Your task to perform on an android device: Open Android settings Image 0: 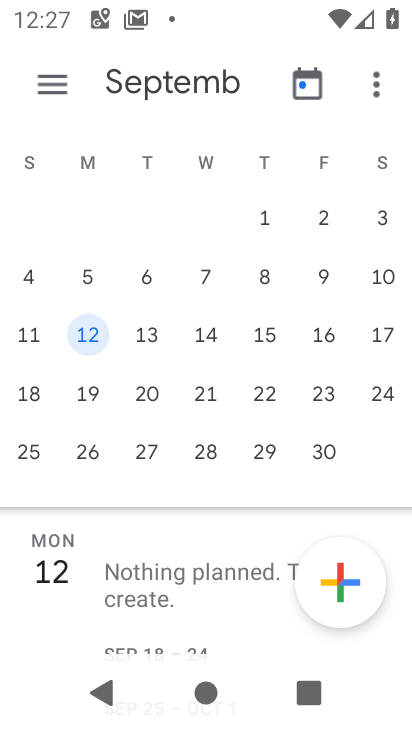
Step 0: press home button
Your task to perform on an android device: Open Android settings Image 1: 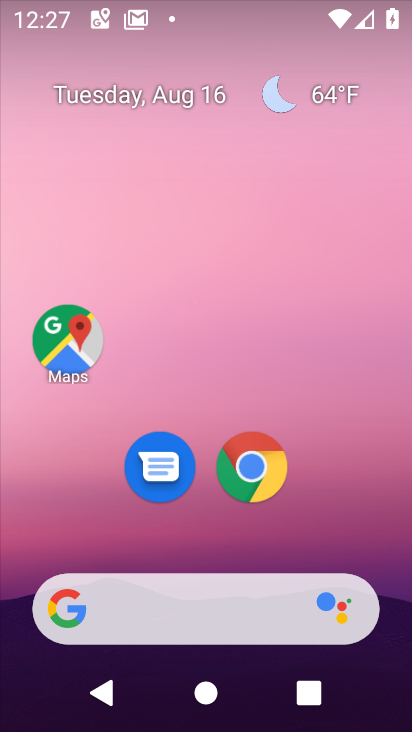
Step 1: drag from (366, 553) to (408, 125)
Your task to perform on an android device: Open Android settings Image 2: 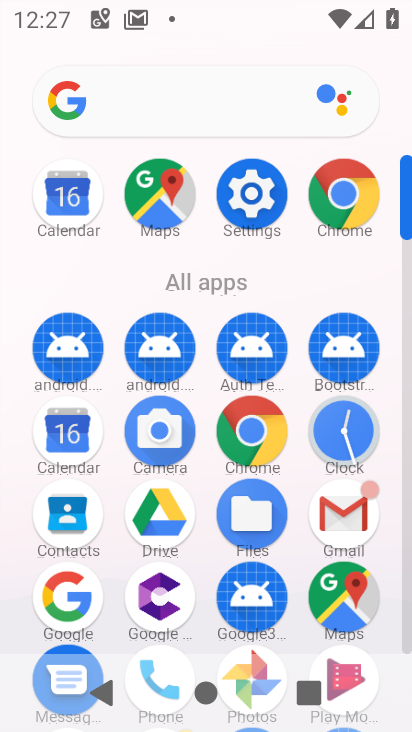
Step 2: click (256, 190)
Your task to perform on an android device: Open Android settings Image 3: 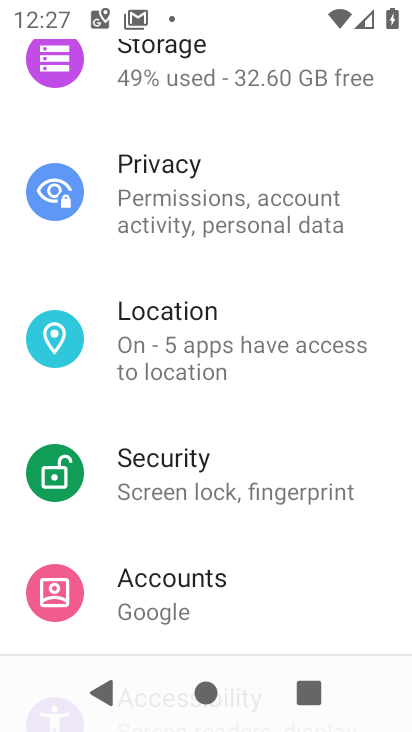
Step 3: drag from (386, 164) to (387, 268)
Your task to perform on an android device: Open Android settings Image 4: 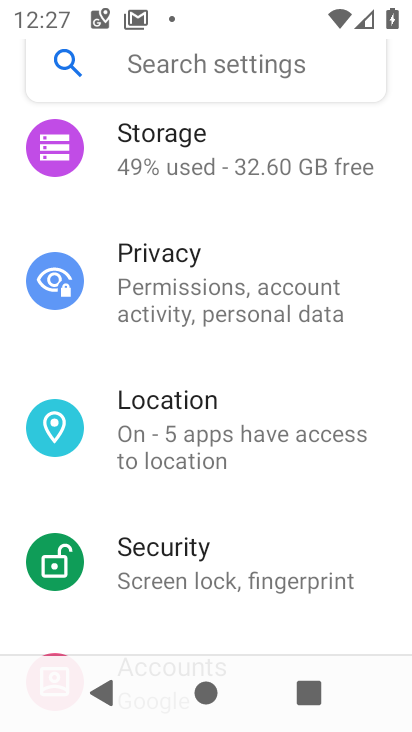
Step 4: drag from (395, 165) to (381, 306)
Your task to perform on an android device: Open Android settings Image 5: 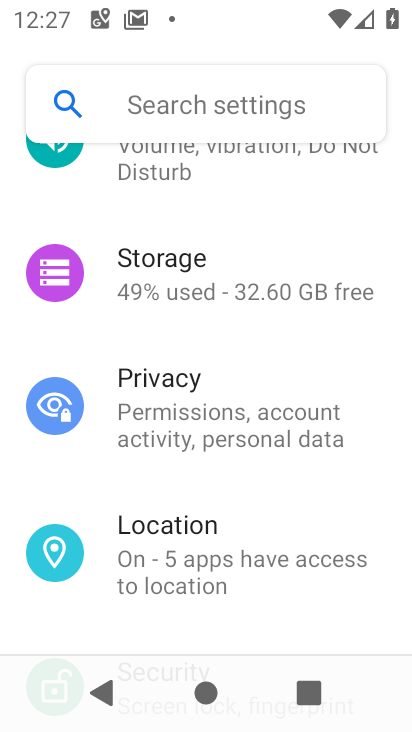
Step 5: drag from (390, 170) to (389, 319)
Your task to perform on an android device: Open Android settings Image 6: 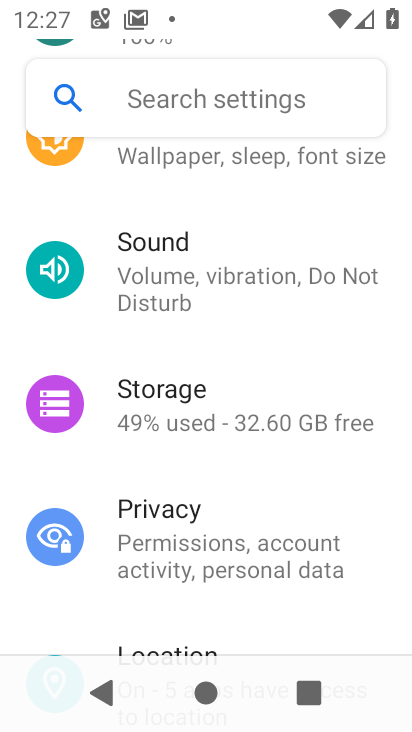
Step 6: drag from (398, 182) to (395, 348)
Your task to perform on an android device: Open Android settings Image 7: 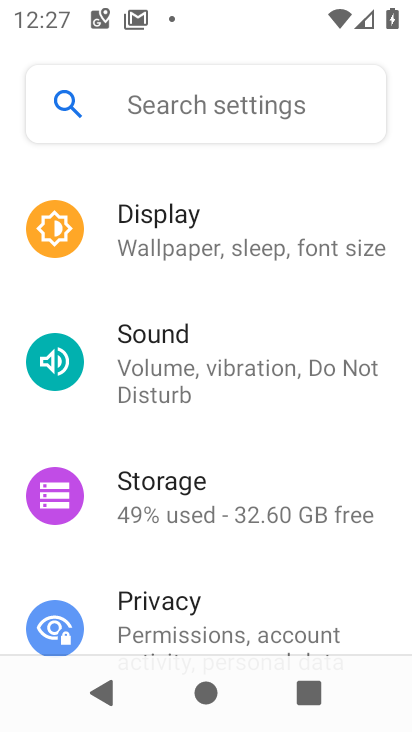
Step 7: drag from (379, 171) to (373, 344)
Your task to perform on an android device: Open Android settings Image 8: 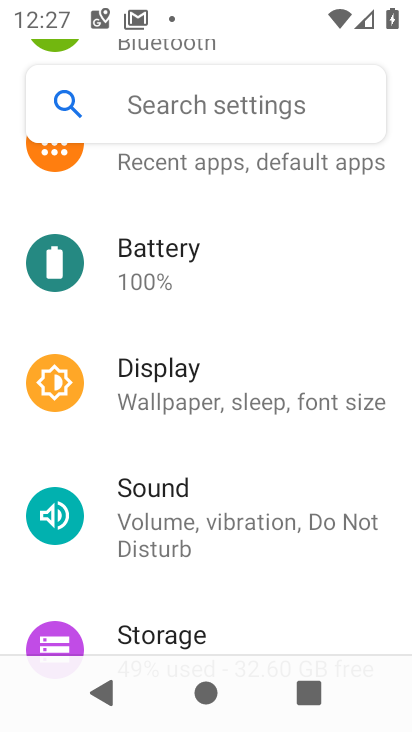
Step 8: drag from (397, 154) to (383, 366)
Your task to perform on an android device: Open Android settings Image 9: 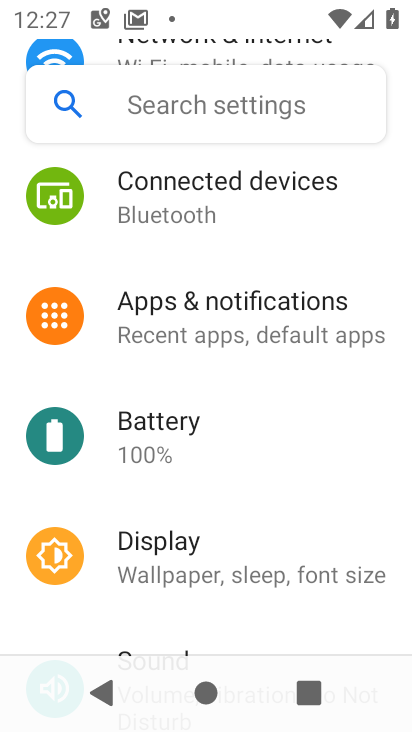
Step 9: drag from (337, 447) to (359, 315)
Your task to perform on an android device: Open Android settings Image 10: 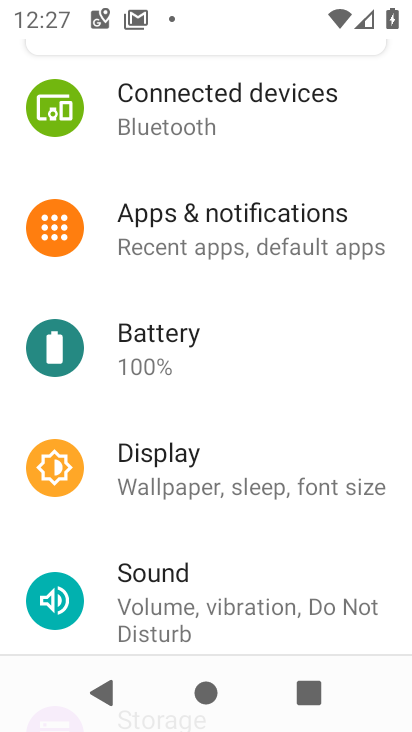
Step 10: drag from (336, 486) to (357, 374)
Your task to perform on an android device: Open Android settings Image 11: 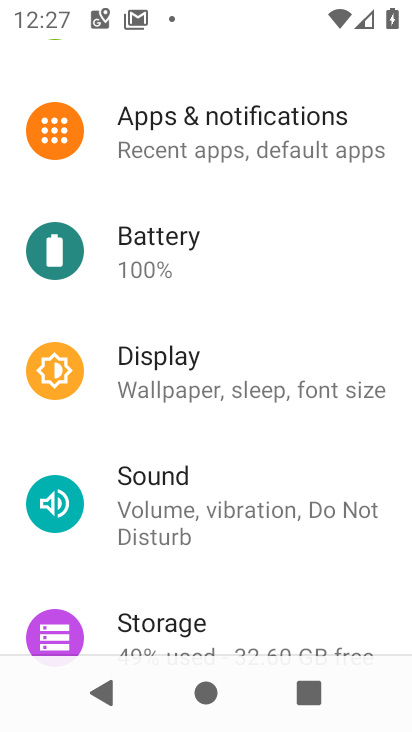
Step 11: drag from (336, 534) to (356, 394)
Your task to perform on an android device: Open Android settings Image 12: 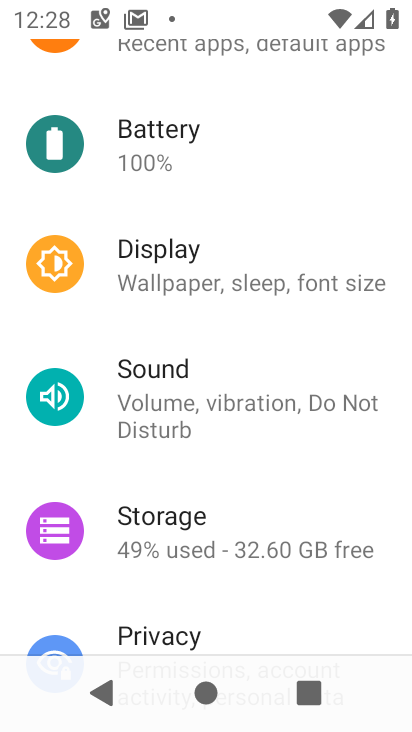
Step 12: drag from (358, 512) to (371, 399)
Your task to perform on an android device: Open Android settings Image 13: 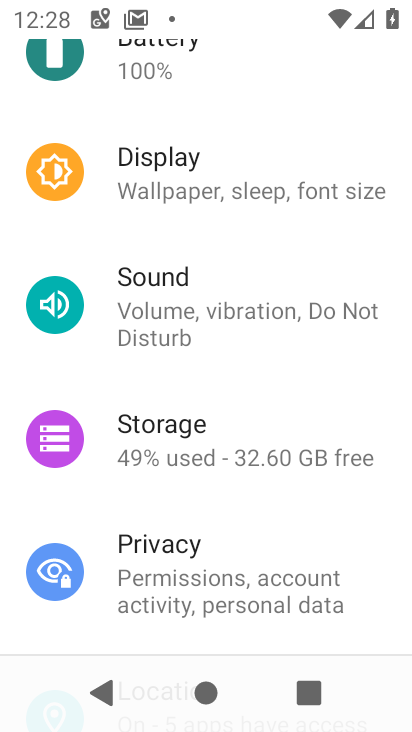
Step 13: drag from (355, 520) to (363, 371)
Your task to perform on an android device: Open Android settings Image 14: 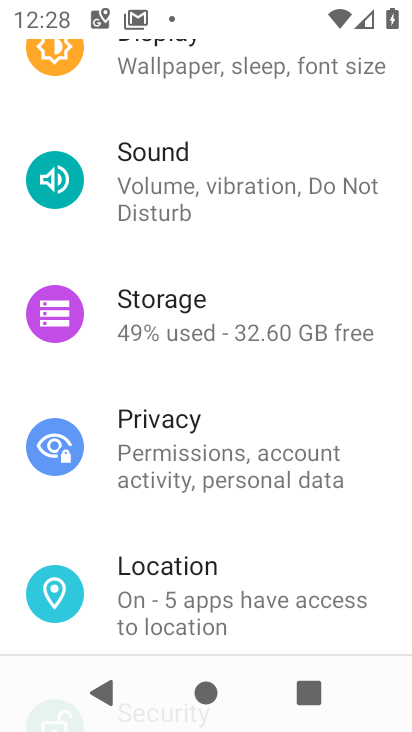
Step 14: drag from (338, 532) to (361, 384)
Your task to perform on an android device: Open Android settings Image 15: 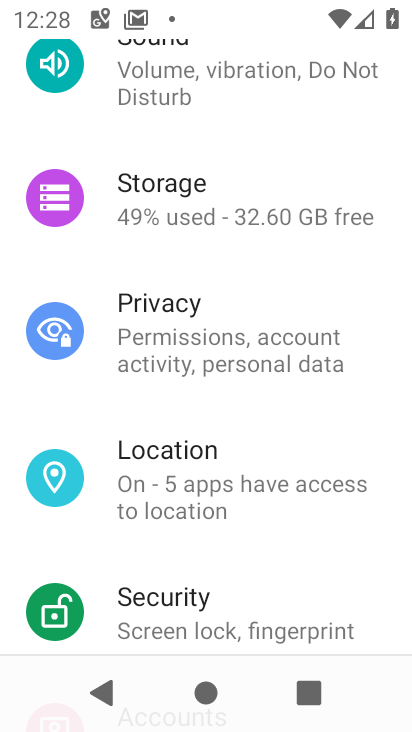
Step 15: drag from (332, 546) to (371, 382)
Your task to perform on an android device: Open Android settings Image 16: 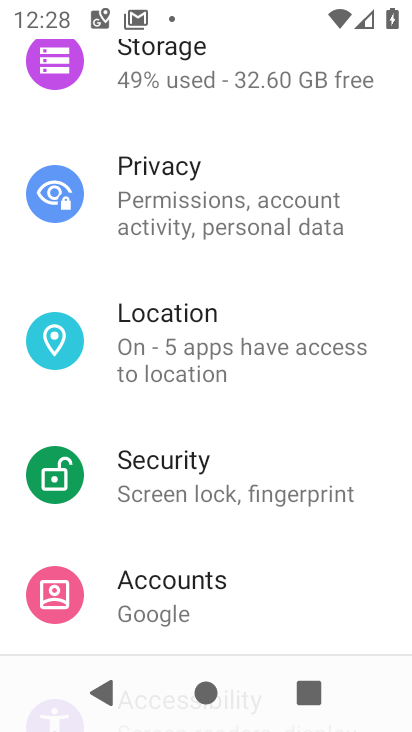
Step 16: drag from (350, 555) to (370, 428)
Your task to perform on an android device: Open Android settings Image 17: 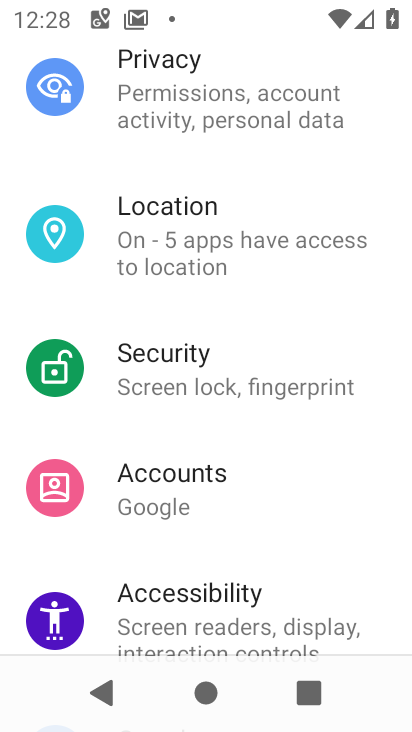
Step 17: drag from (353, 536) to (367, 414)
Your task to perform on an android device: Open Android settings Image 18: 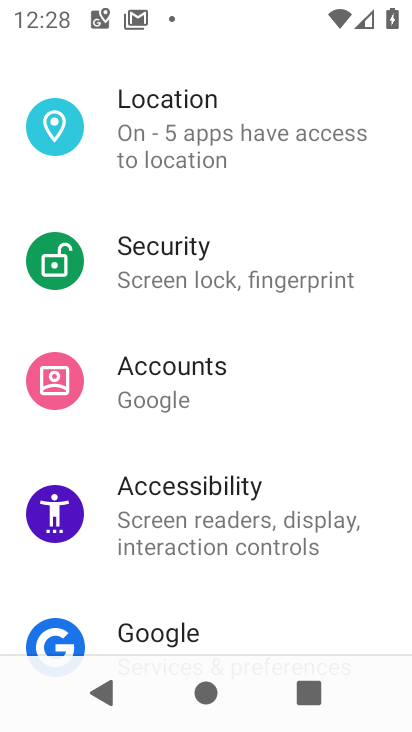
Step 18: drag from (349, 583) to (367, 413)
Your task to perform on an android device: Open Android settings Image 19: 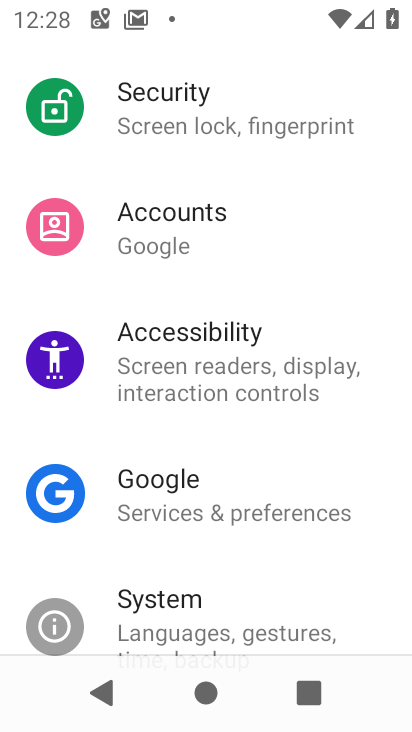
Step 19: drag from (349, 566) to (361, 392)
Your task to perform on an android device: Open Android settings Image 20: 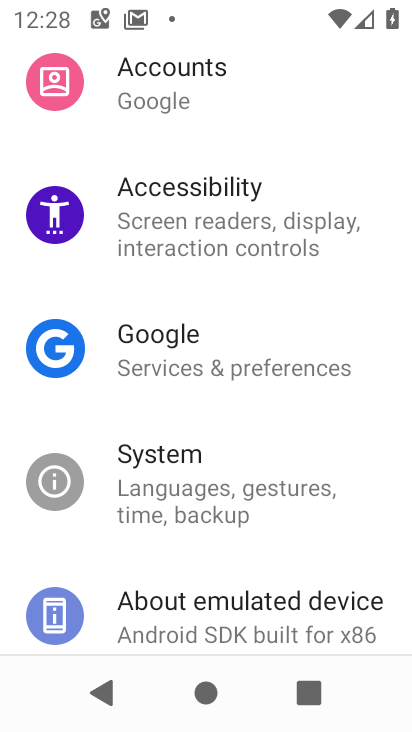
Step 20: click (308, 471)
Your task to perform on an android device: Open Android settings Image 21: 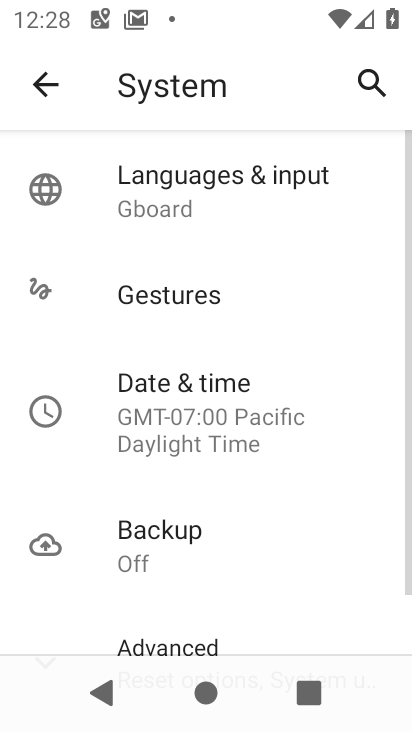
Step 21: drag from (312, 555) to (333, 397)
Your task to perform on an android device: Open Android settings Image 22: 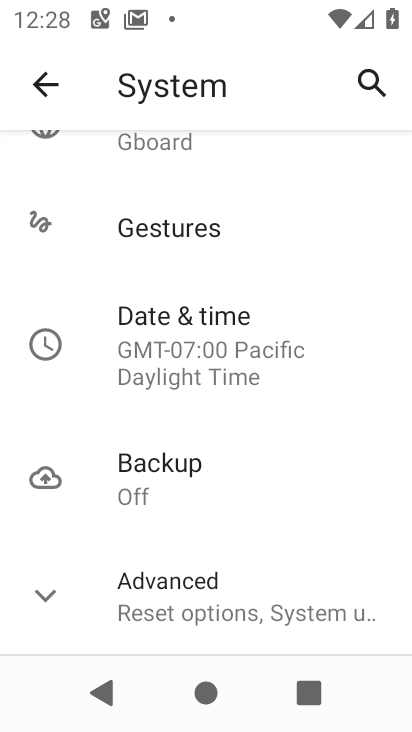
Step 22: click (293, 606)
Your task to perform on an android device: Open Android settings Image 23: 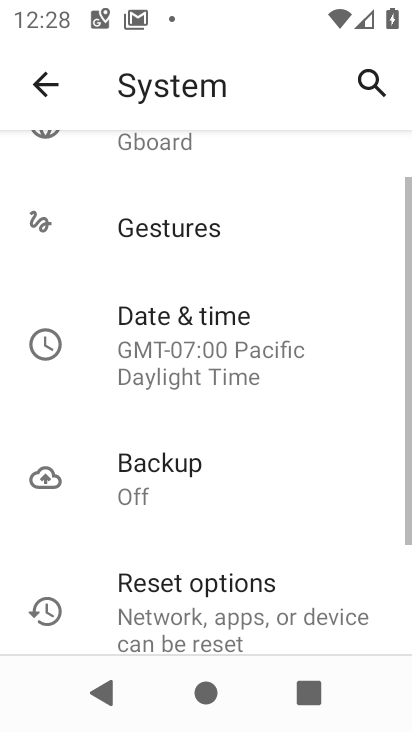
Step 23: task complete